Your task to perform on an android device: change notifications settings Image 0: 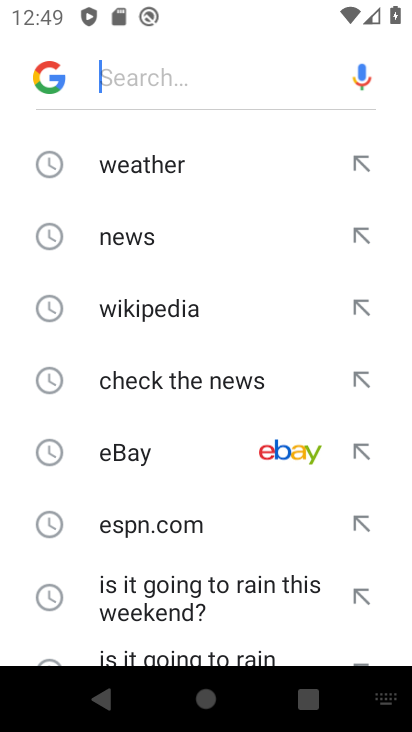
Step 0: press home button
Your task to perform on an android device: change notifications settings Image 1: 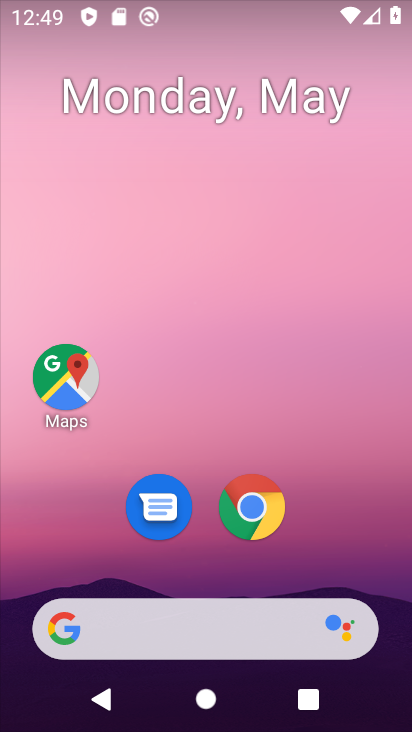
Step 1: drag from (231, 685) to (224, 1)
Your task to perform on an android device: change notifications settings Image 2: 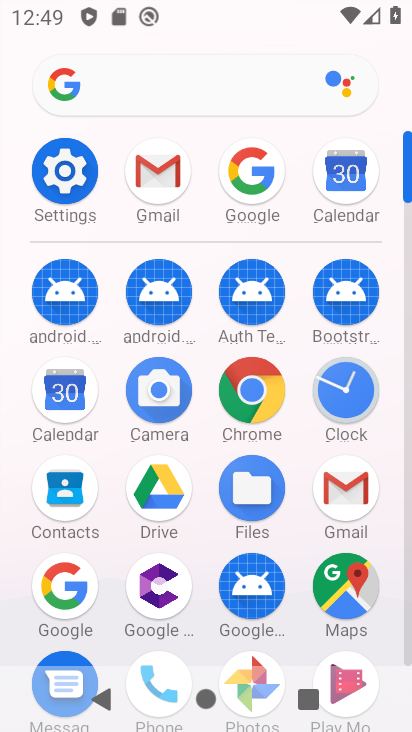
Step 2: click (62, 175)
Your task to perform on an android device: change notifications settings Image 3: 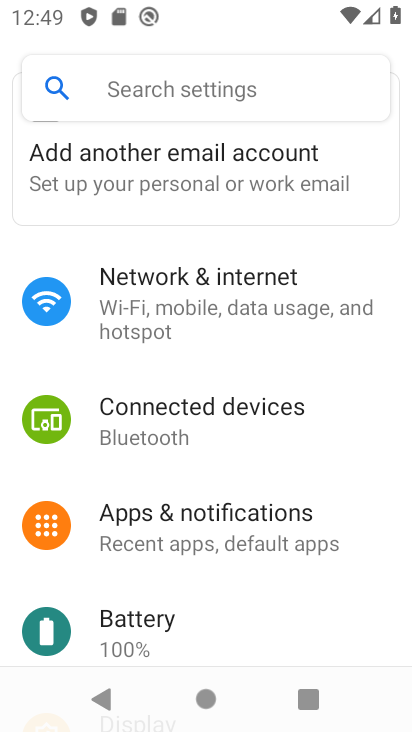
Step 3: click (198, 532)
Your task to perform on an android device: change notifications settings Image 4: 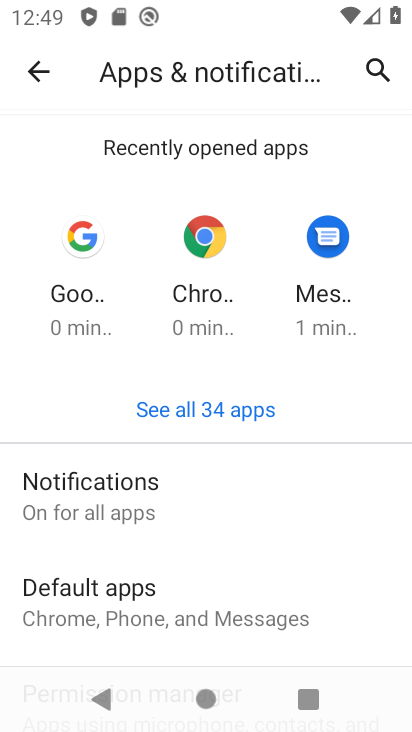
Step 4: drag from (137, 632) to (138, 495)
Your task to perform on an android device: change notifications settings Image 5: 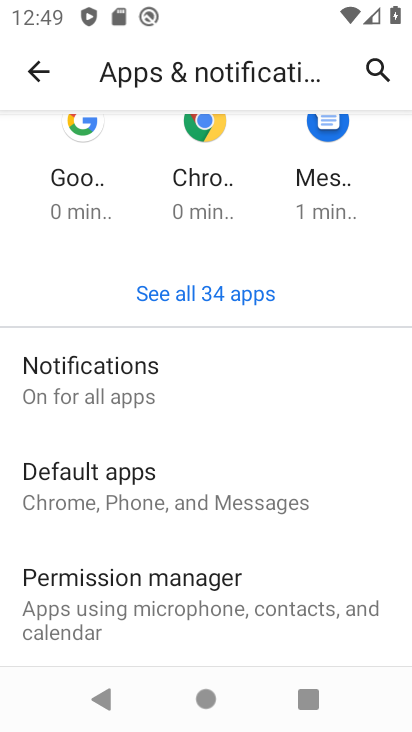
Step 5: click (81, 397)
Your task to perform on an android device: change notifications settings Image 6: 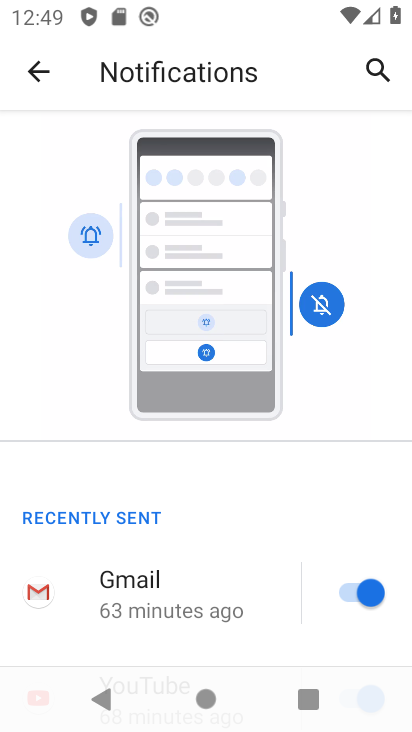
Step 6: drag from (267, 628) to (270, 361)
Your task to perform on an android device: change notifications settings Image 7: 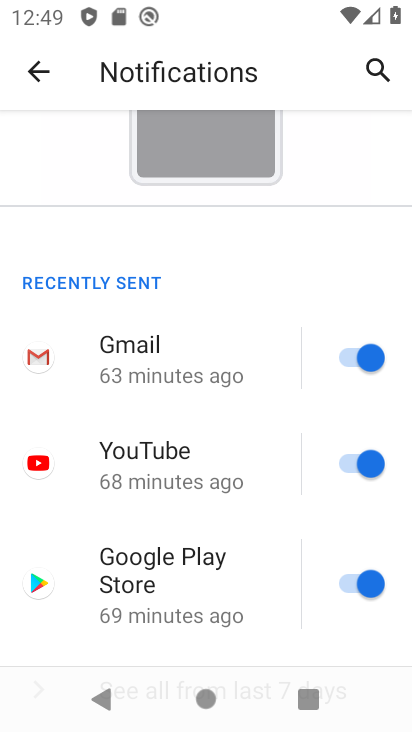
Step 7: drag from (258, 646) to (262, 340)
Your task to perform on an android device: change notifications settings Image 8: 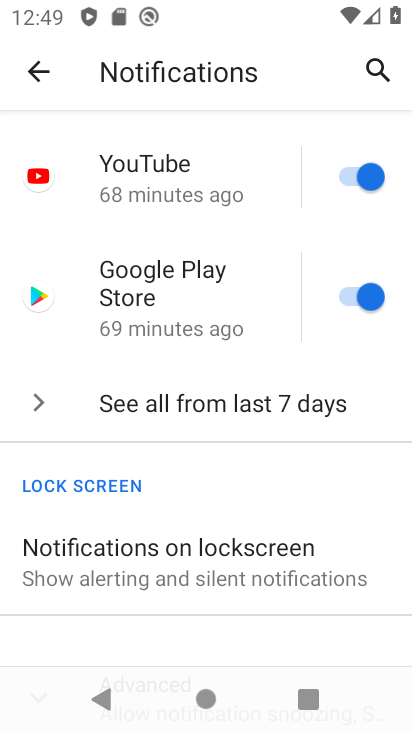
Step 8: drag from (218, 636) to (189, 432)
Your task to perform on an android device: change notifications settings Image 9: 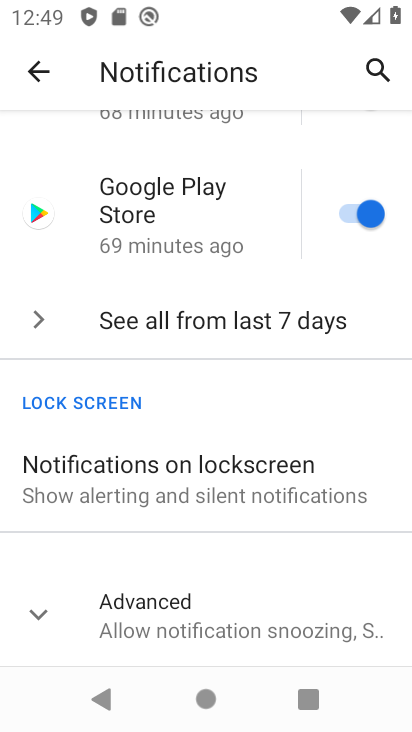
Step 9: click (195, 633)
Your task to perform on an android device: change notifications settings Image 10: 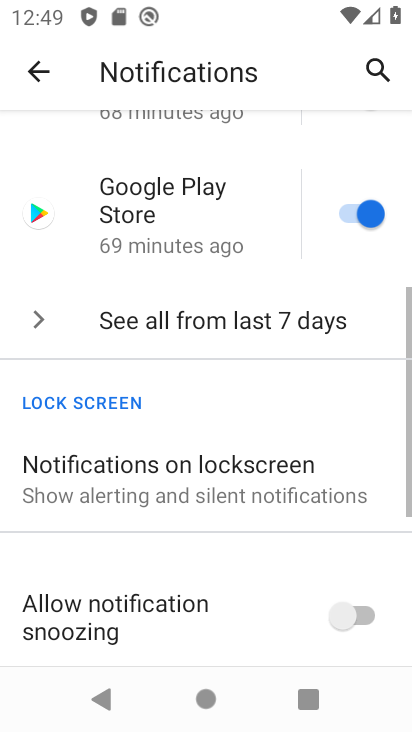
Step 10: drag from (286, 644) to (288, 345)
Your task to perform on an android device: change notifications settings Image 11: 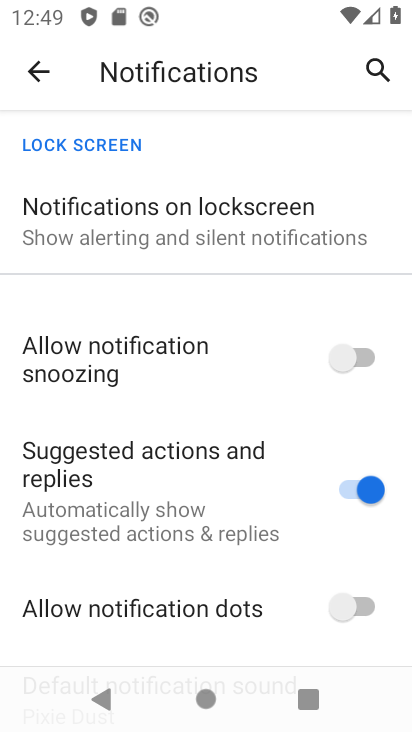
Step 11: click (361, 357)
Your task to perform on an android device: change notifications settings Image 12: 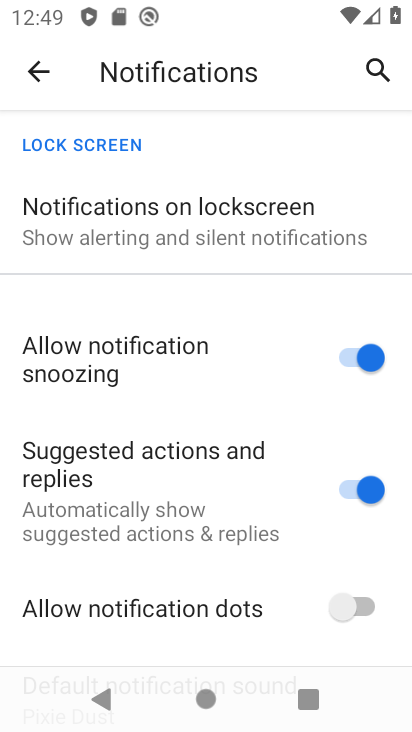
Step 12: task complete